Your task to perform on an android device: Go to Amazon Image 0: 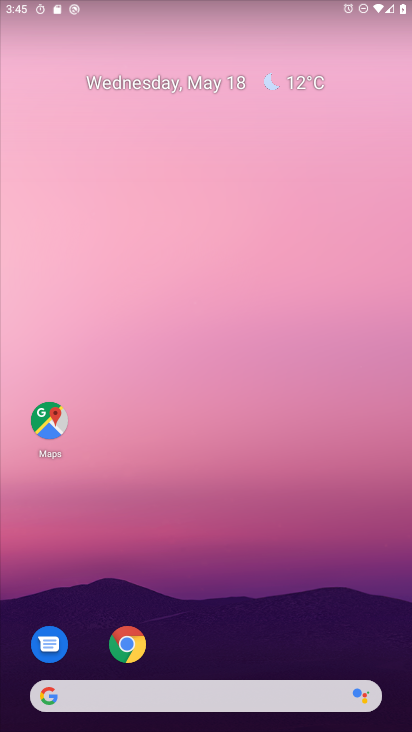
Step 0: click (120, 638)
Your task to perform on an android device: Go to Amazon Image 1: 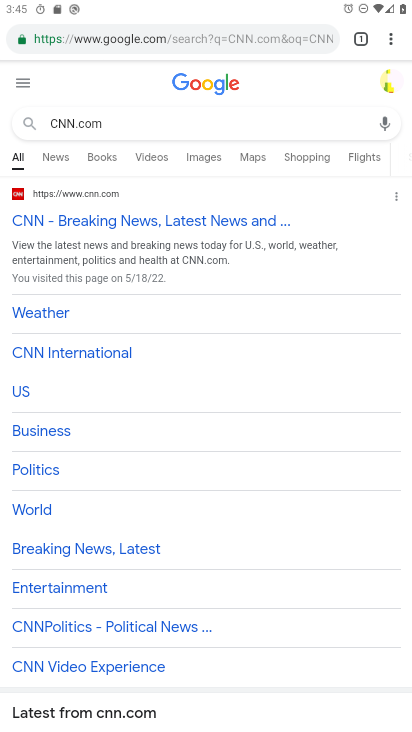
Step 1: click (329, 33)
Your task to perform on an android device: Go to Amazon Image 2: 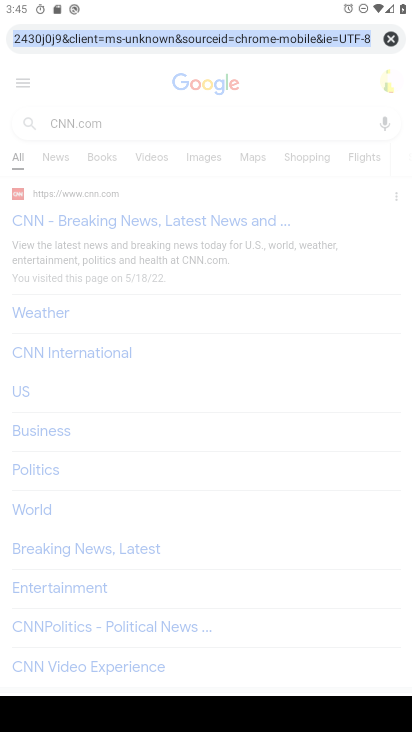
Step 2: click (393, 46)
Your task to perform on an android device: Go to Amazon Image 3: 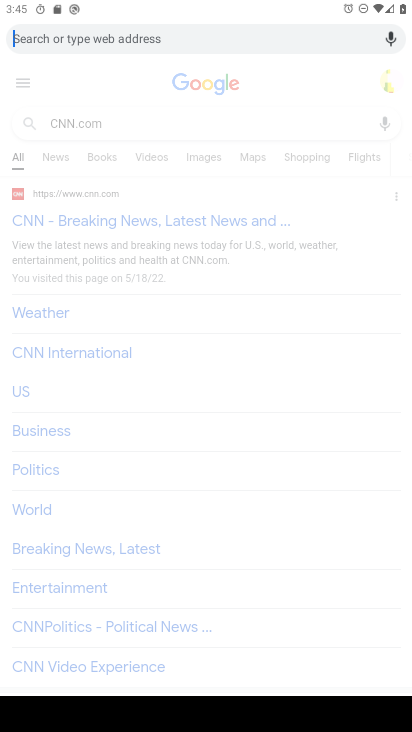
Step 3: type "Amazon"
Your task to perform on an android device: Go to Amazon Image 4: 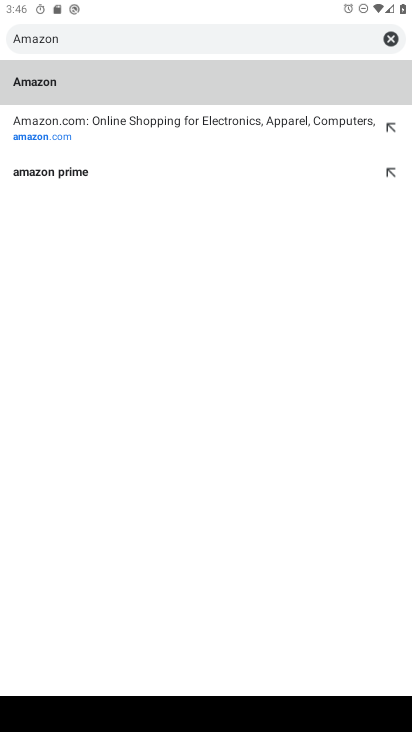
Step 4: click (52, 78)
Your task to perform on an android device: Go to Amazon Image 5: 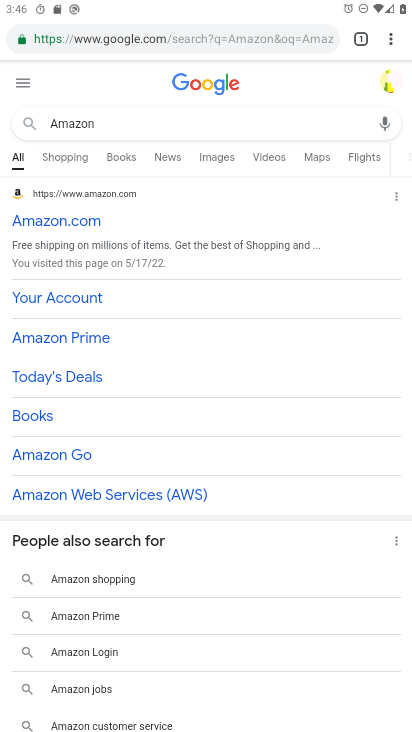
Step 5: task complete